Your task to perform on an android device: turn on improve location accuracy Image 0: 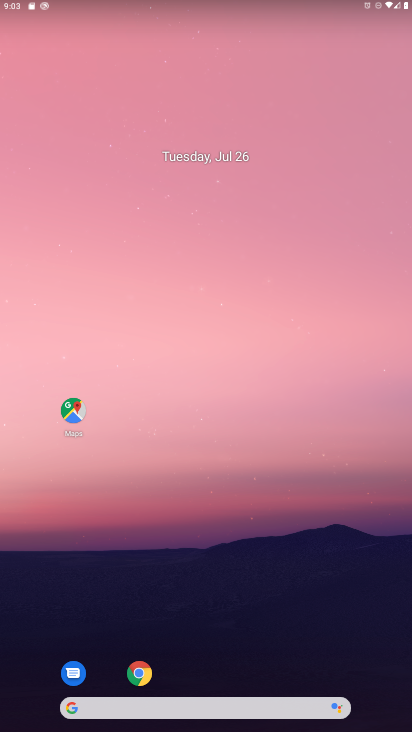
Step 0: drag from (372, 647) to (126, 12)
Your task to perform on an android device: turn on improve location accuracy Image 1: 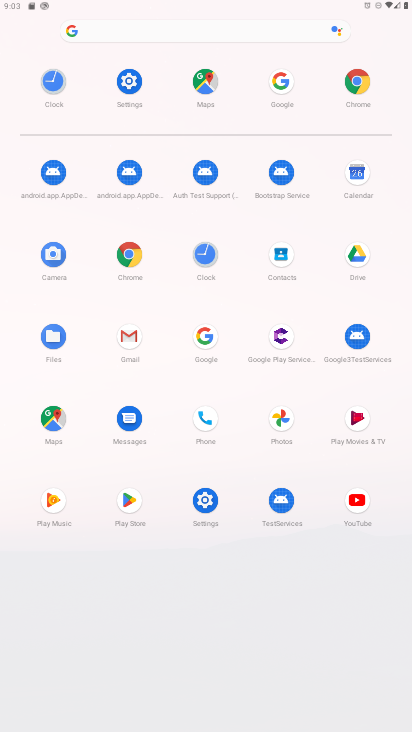
Step 1: click (209, 489)
Your task to perform on an android device: turn on improve location accuracy Image 2: 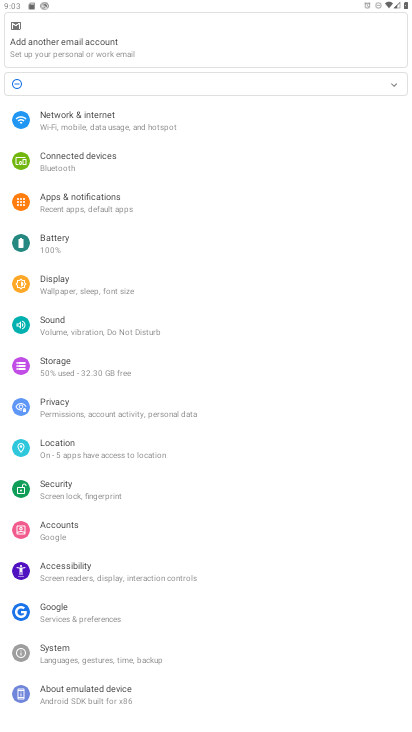
Step 2: click (60, 446)
Your task to perform on an android device: turn on improve location accuracy Image 3: 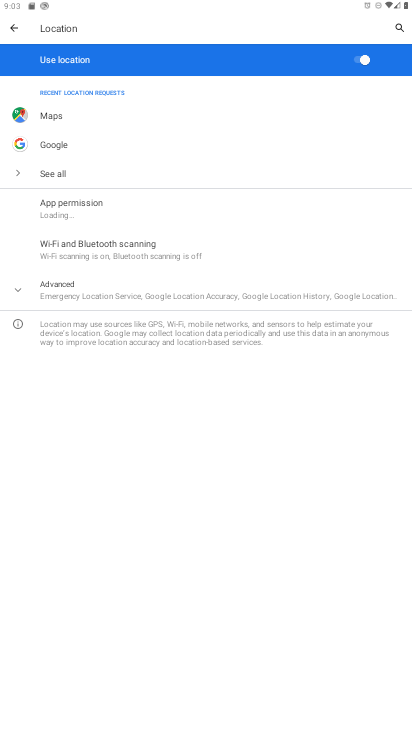
Step 3: click (93, 286)
Your task to perform on an android device: turn on improve location accuracy Image 4: 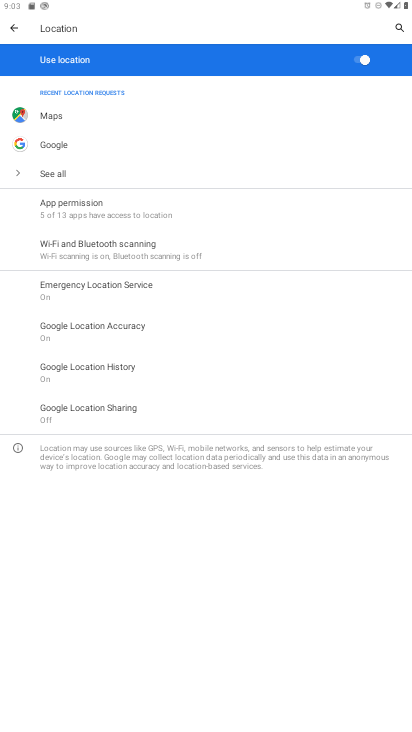
Step 4: click (135, 325)
Your task to perform on an android device: turn on improve location accuracy Image 5: 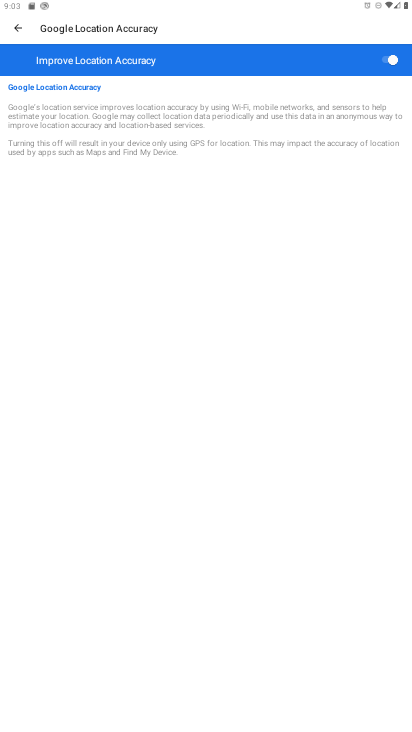
Step 5: task complete